Your task to perform on an android device: set default search engine in the chrome app Image 0: 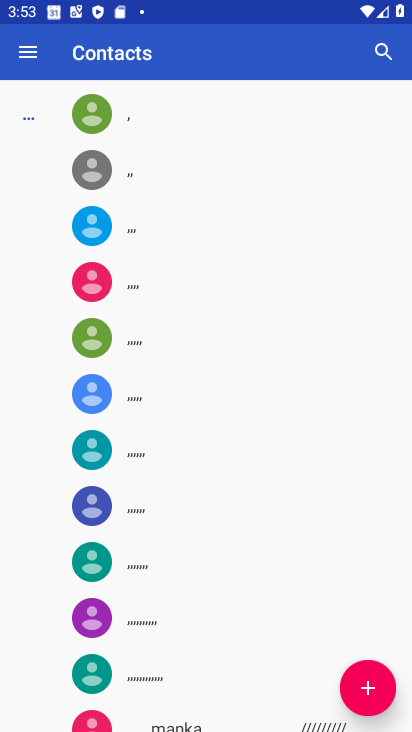
Step 0: press home button
Your task to perform on an android device: set default search engine in the chrome app Image 1: 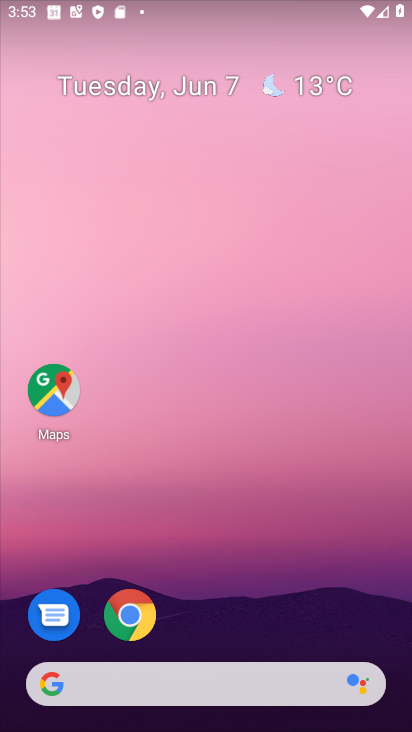
Step 1: click (143, 623)
Your task to perform on an android device: set default search engine in the chrome app Image 2: 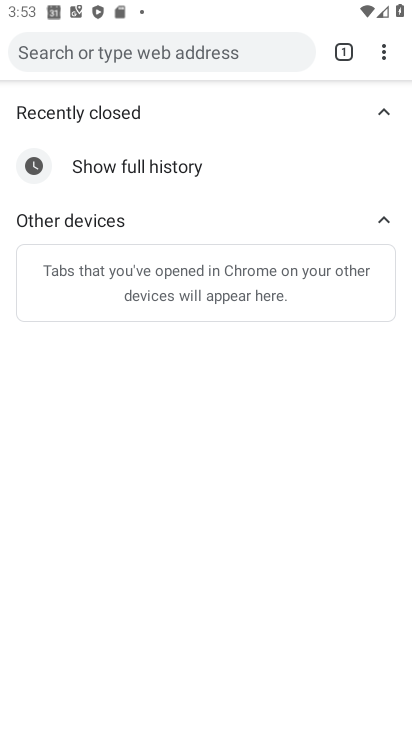
Step 2: click (386, 54)
Your task to perform on an android device: set default search engine in the chrome app Image 3: 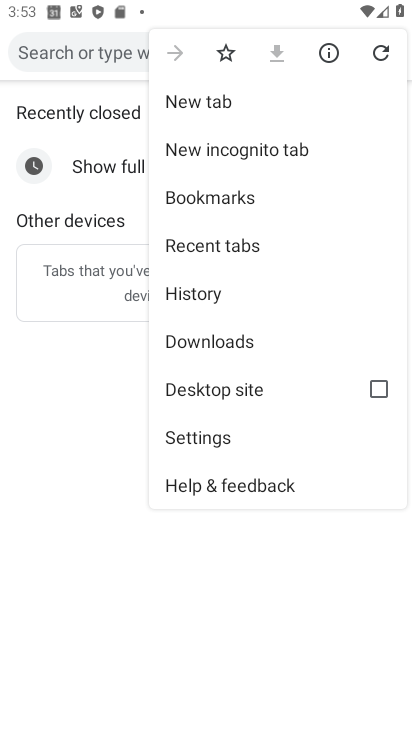
Step 3: click (219, 438)
Your task to perform on an android device: set default search engine in the chrome app Image 4: 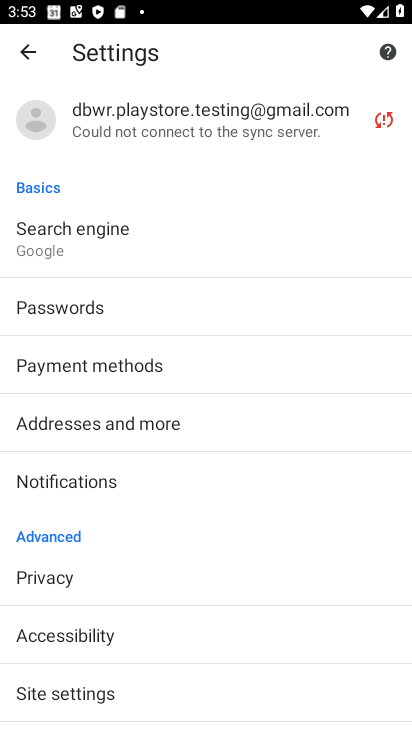
Step 4: click (83, 235)
Your task to perform on an android device: set default search engine in the chrome app Image 5: 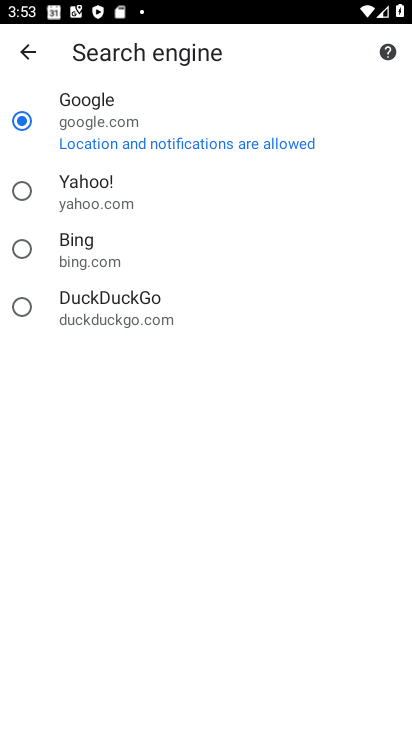
Step 5: click (149, 130)
Your task to perform on an android device: set default search engine in the chrome app Image 6: 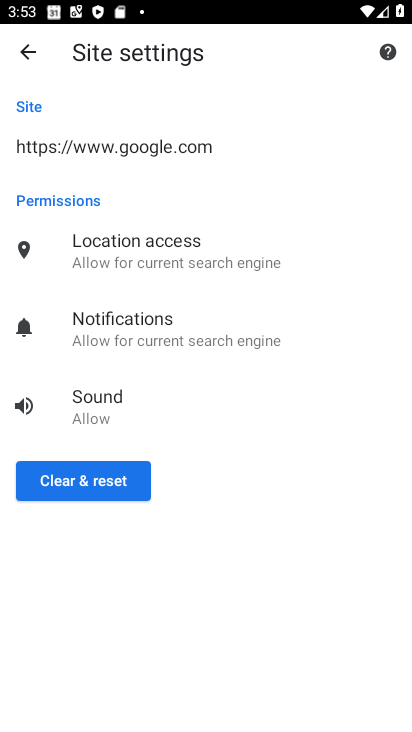
Step 6: click (106, 473)
Your task to perform on an android device: set default search engine in the chrome app Image 7: 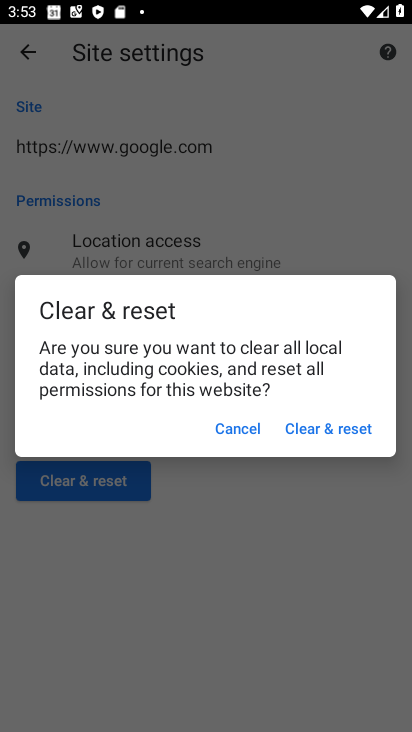
Step 7: click (341, 426)
Your task to perform on an android device: set default search engine in the chrome app Image 8: 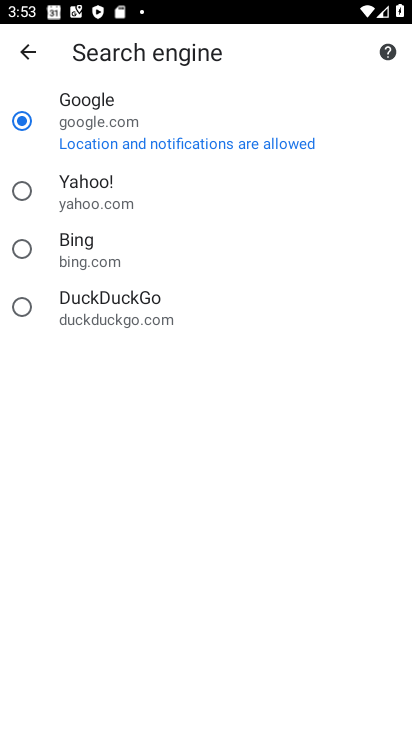
Step 8: task complete